Your task to perform on an android device: Play the last video I watched on Youtube Image 0: 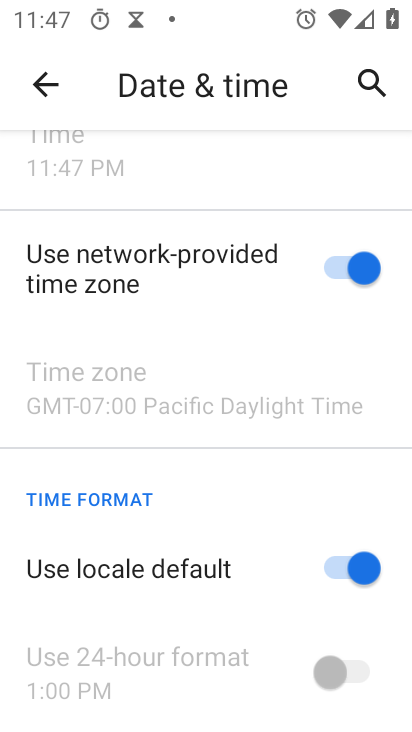
Step 0: press home button
Your task to perform on an android device: Play the last video I watched on Youtube Image 1: 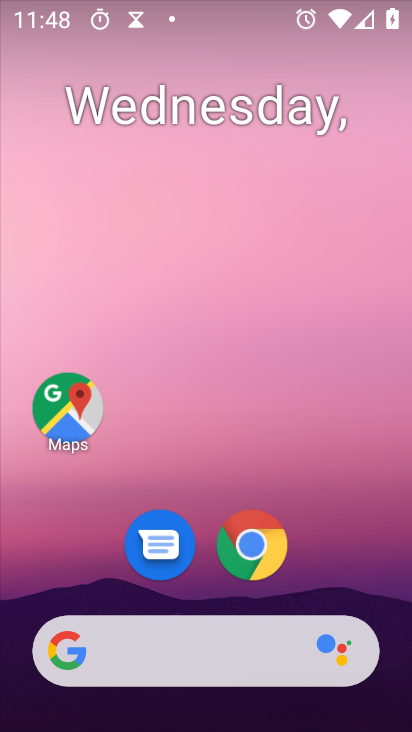
Step 1: drag from (154, 639) to (310, 37)
Your task to perform on an android device: Play the last video I watched on Youtube Image 2: 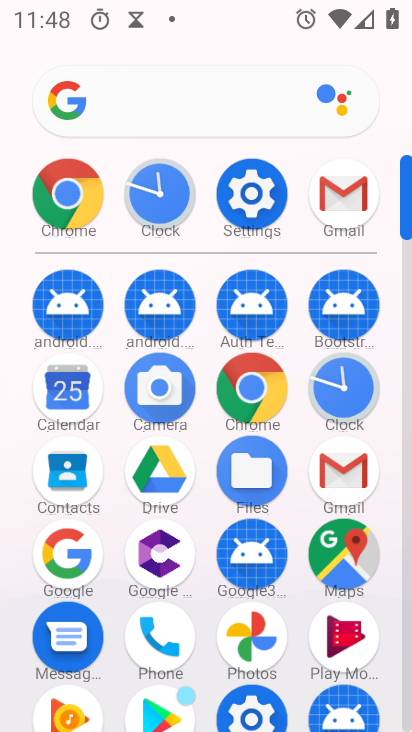
Step 2: drag from (193, 642) to (317, 264)
Your task to perform on an android device: Play the last video I watched on Youtube Image 3: 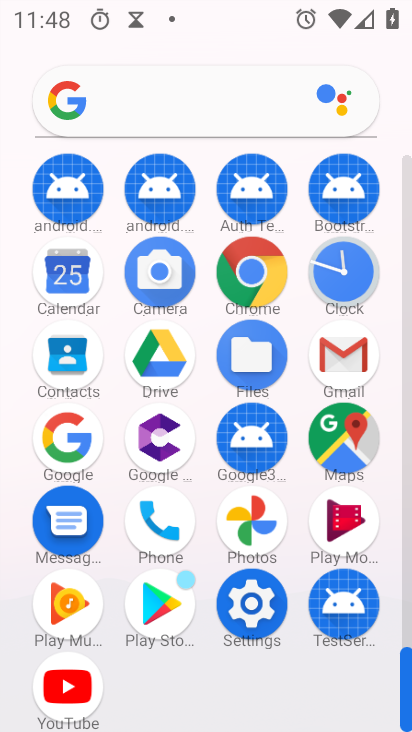
Step 3: click (66, 694)
Your task to perform on an android device: Play the last video I watched on Youtube Image 4: 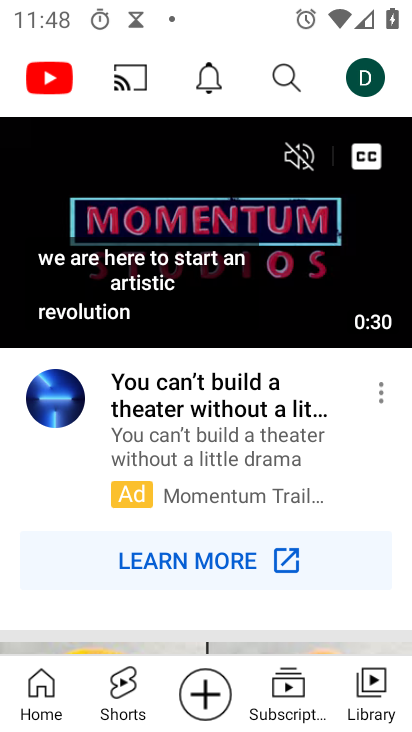
Step 4: click (376, 701)
Your task to perform on an android device: Play the last video I watched on Youtube Image 5: 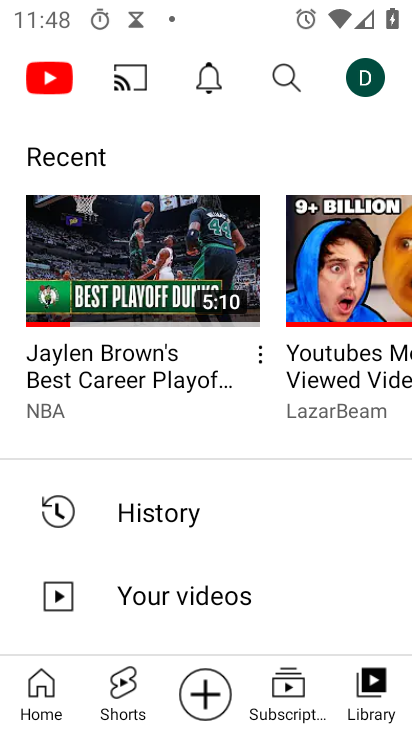
Step 5: click (147, 241)
Your task to perform on an android device: Play the last video I watched on Youtube Image 6: 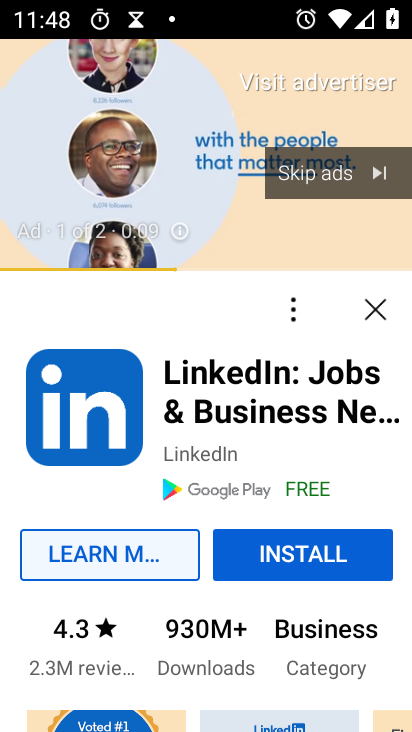
Step 6: click (339, 170)
Your task to perform on an android device: Play the last video I watched on Youtube Image 7: 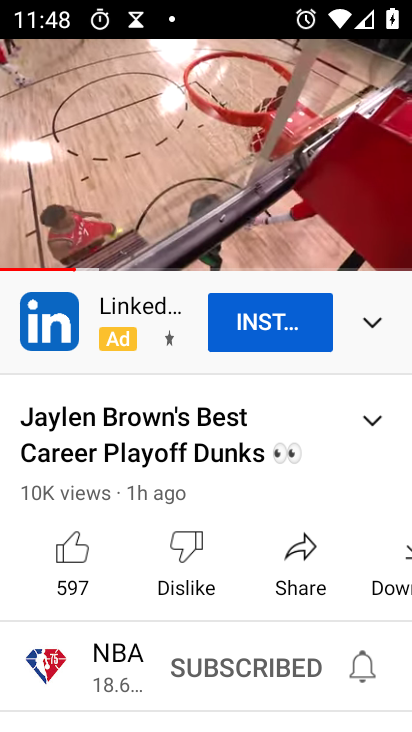
Step 7: click (203, 128)
Your task to perform on an android device: Play the last video I watched on Youtube Image 8: 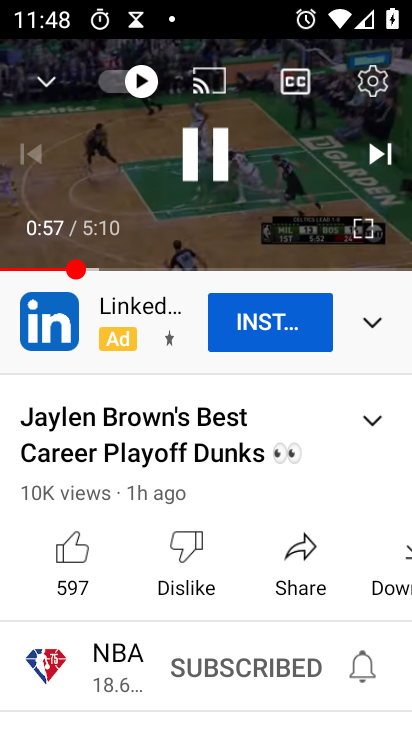
Step 8: click (203, 129)
Your task to perform on an android device: Play the last video I watched on Youtube Image 9: 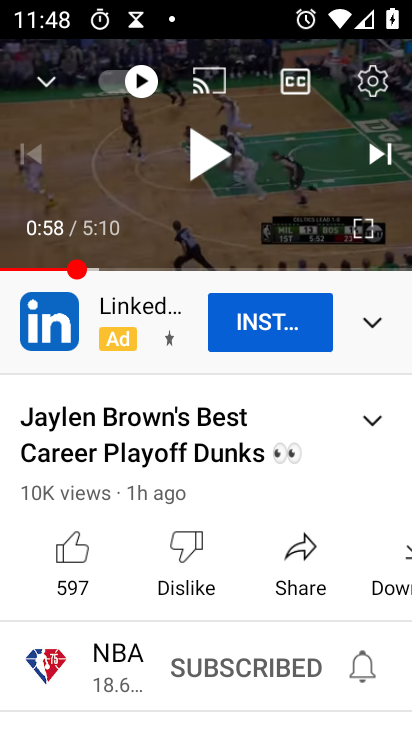
Step 9: task complete